Your task to perform on an android device: Search for custom wallets on Etsy. Image 0: 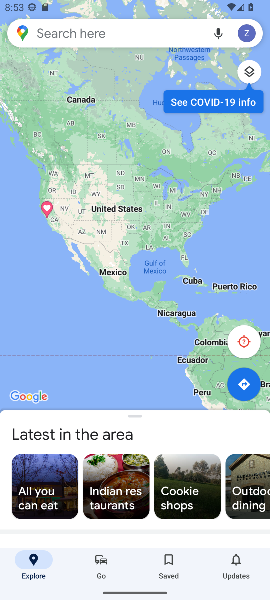
Step 0: press home button
Your task to perform on an android device: Search for custom wallets on Etsy. Image 1: 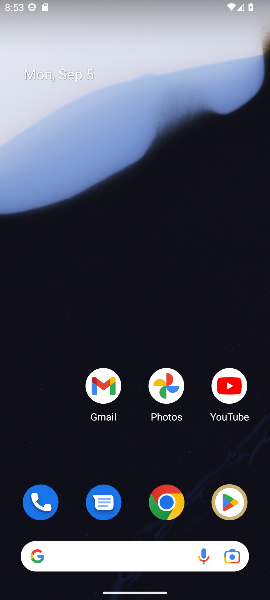
Step 1: drag from (153, 69) to (130, 11)
Your task to perform on an android device: Search for custom wallets on Etsy. Image 2: 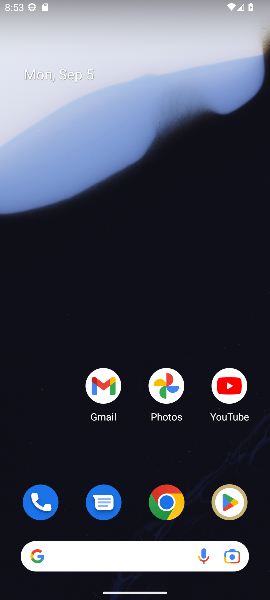
Step 2: drag from (192, 461) to (85, 1)
Your task to perform on an android device: Search for custom wallets on Etsy. Image 3: 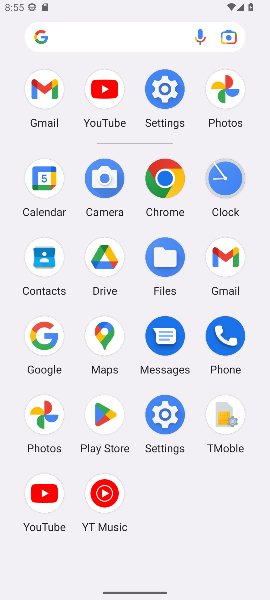
Step 3: click (47, 344)
Your task to perform on an android device: Search for custom wallets on Etsy. Image 4: 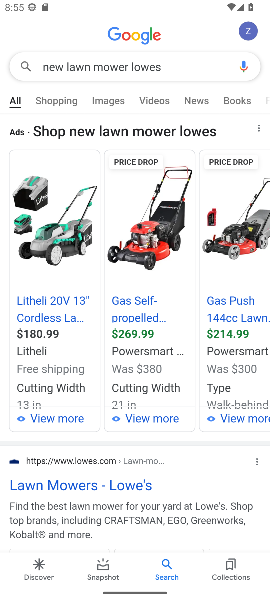
Step 4: press back button
Your task to perform on an android device: Search for custom wallets on Etsy. Image 5: 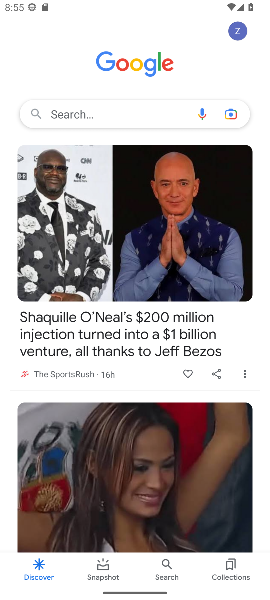
Step 5: click (86, 106)
Your task to perform on an android device: Search for custom wallets on Etsy. Image 6: 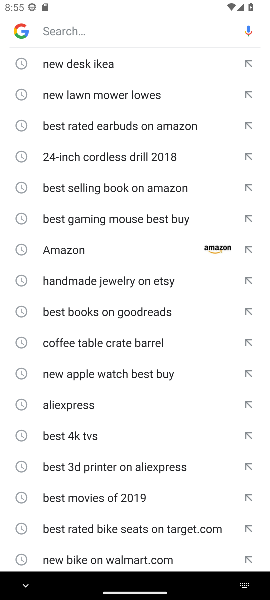
Step 6: type "custom wallets on Etsy"
Your task to perform on an android device: Search for custom wallets on Etsy. Image 7: 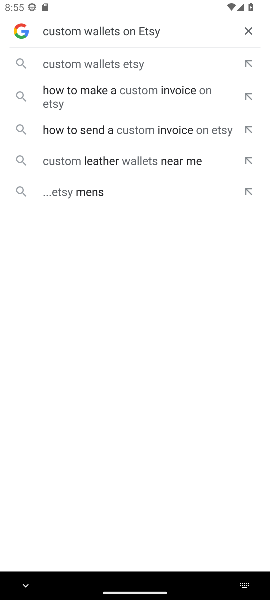
Step 7: click (131, 67)
Your task to perform on an android device: Search for custom wallets on Etsy. Image 8: 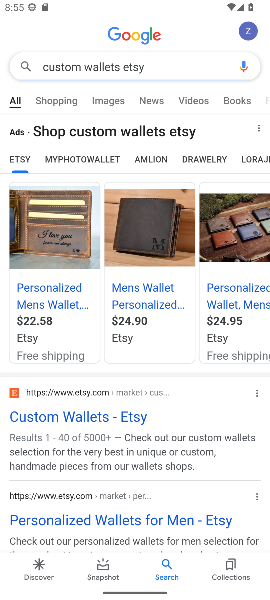
Step 8: task complete